Your task to perform on an android device: turn off wifi Image 0: 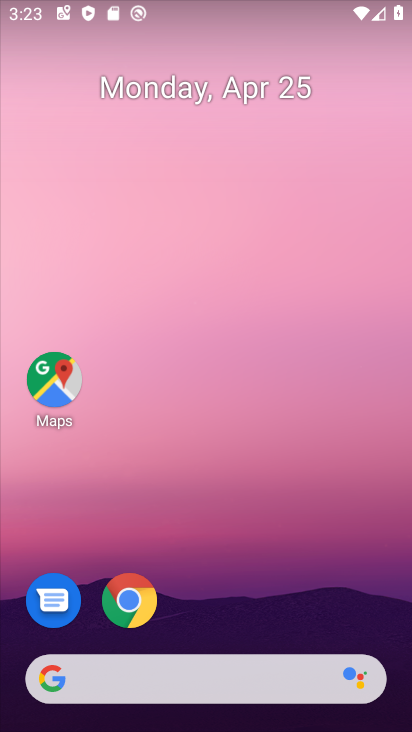
Step 0: drag from (300, 576) to (250, 100)
Your task to perform on an android device: turn off wifi Image 1: 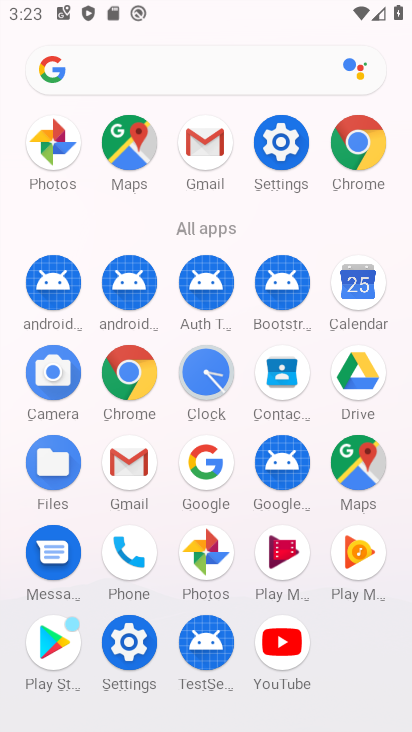
Step 1: click (271, 148)
Your task to perform on an android device: turn off wifi Image 2: 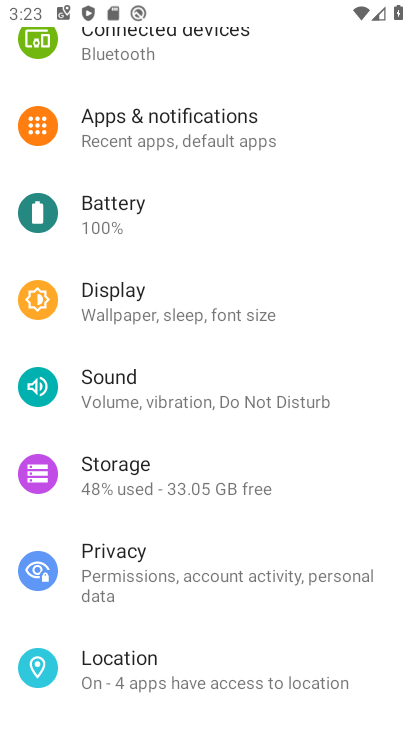
Step 2: drag from (296, 207) to (277, 593)
Your task to perform on an android device: turn off wifi Image 3: 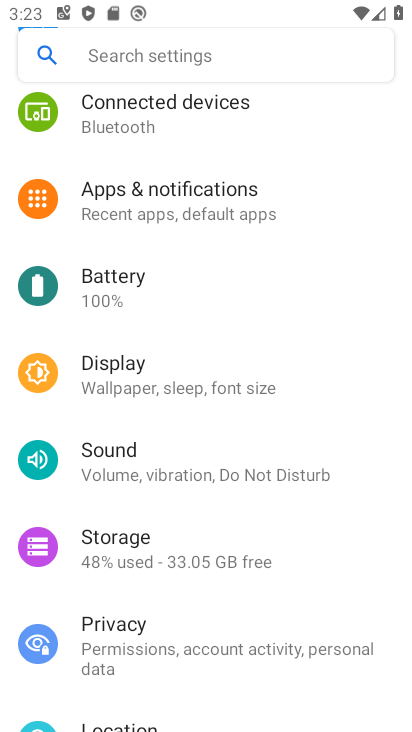
Step 3: drag from (260, 166) to (264, 592)
Your task to perform on an android device: turn off wifi Image 4: 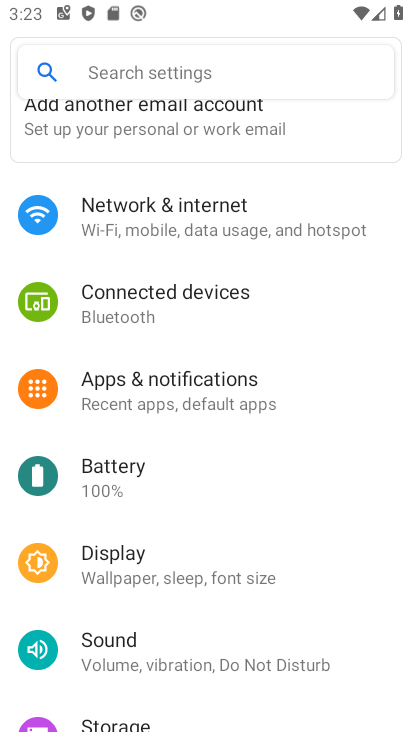
Step 4: drag from (253, 317) to (256, 646)
Your task to perform on an android device: turn off wifi Image 5: 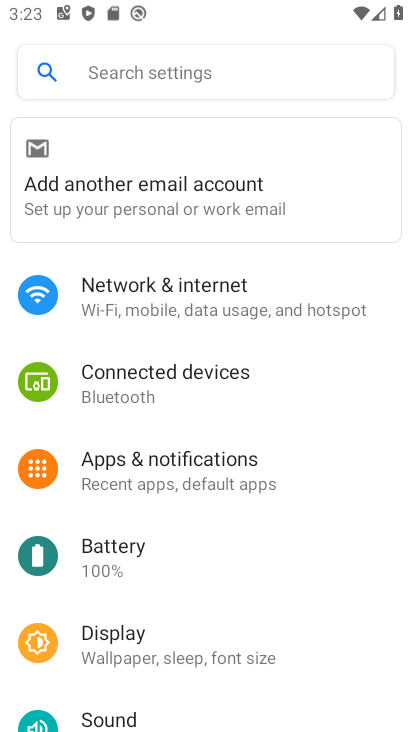
Step 5: drag from (250, 338) to (224, 646)
Your task to perform on an android device: turn off wifi Image 6: 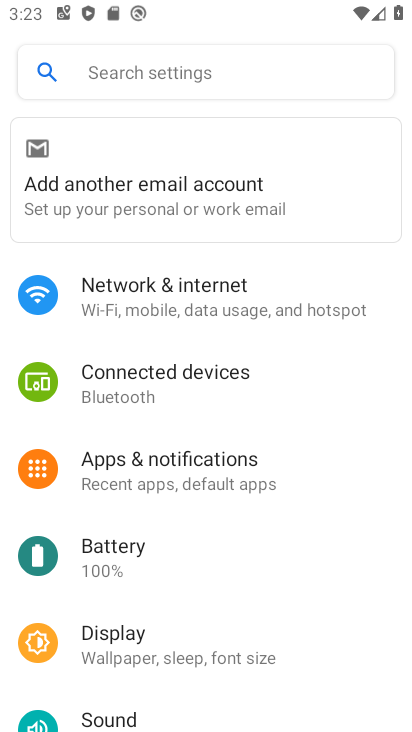
Step 6: click (215, 290)
Your task to perform on an android device: turn off wifi Image 7: 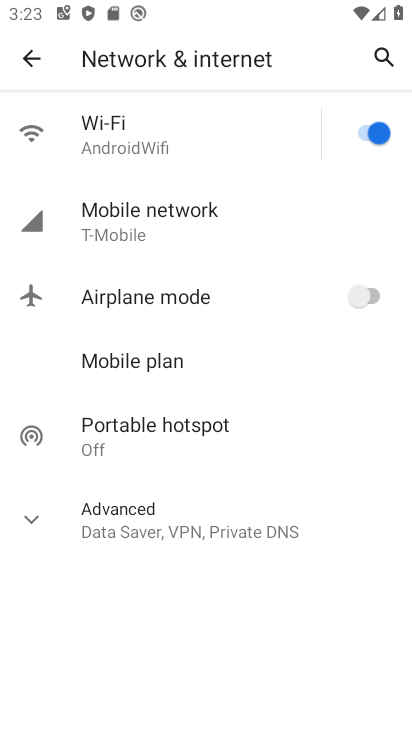
Step 7: click (378, 136)
Your task to perform on an android device: turn off wifi Image 8: 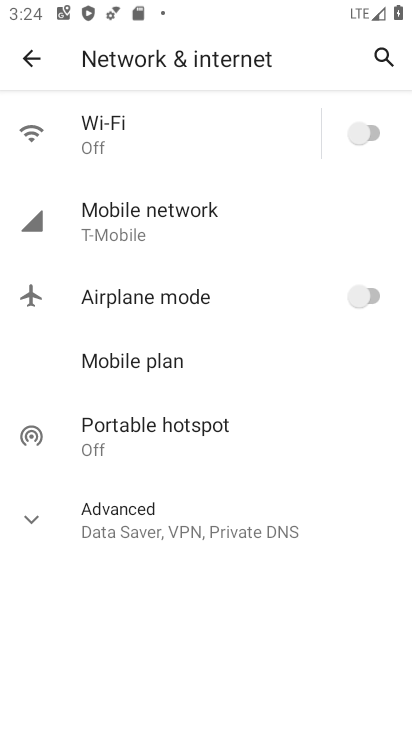
Step 8: task complete